Your task to perform on an android device: turn on location history Image 0: 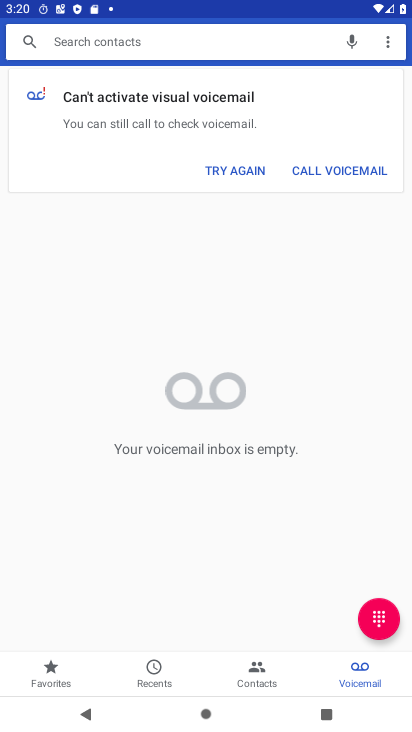
Step 0: press home button
Your task to perform on an android device: turn on location history Image 1: 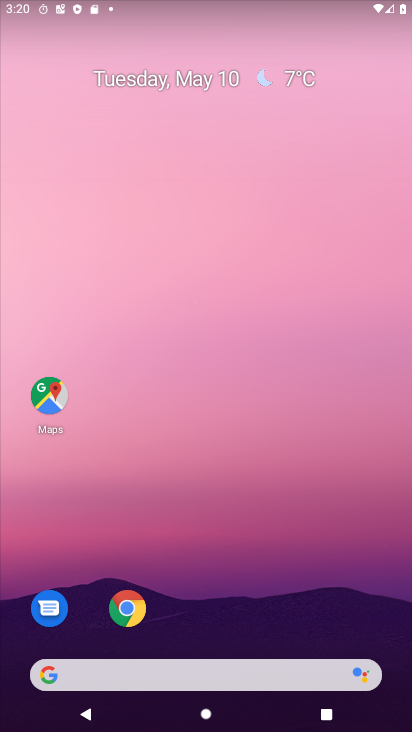
Step 1: click (46, 404)
Your task to perform on an android device: turn on location history Image 2: 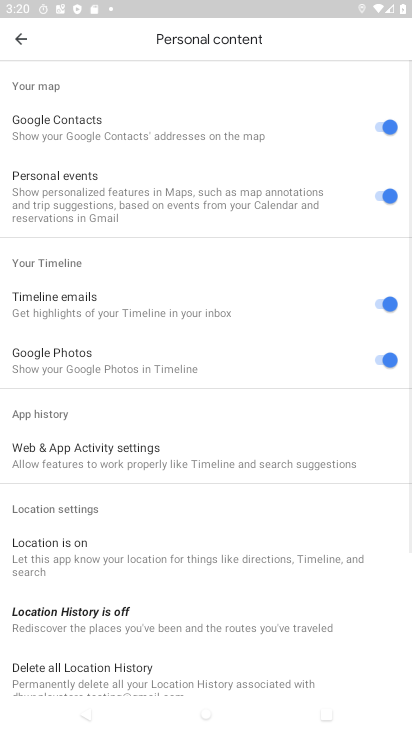
Step 2: click (26, 39)
Your task to perform on an android device: turn on location history Image 3: 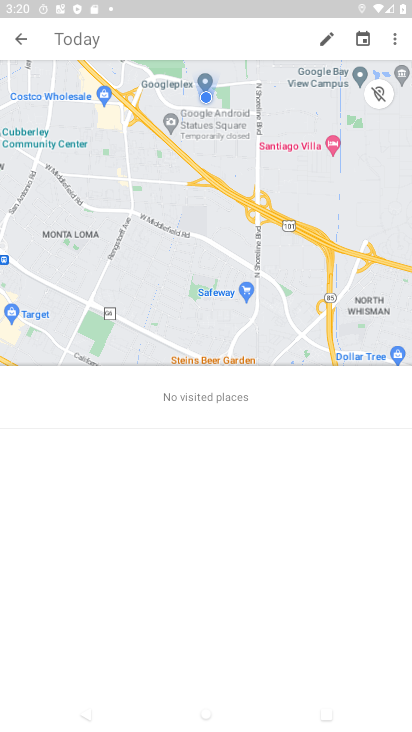
Step 3: click (396, 41)
Your task to perform on an android device: turn on location history Image 4: 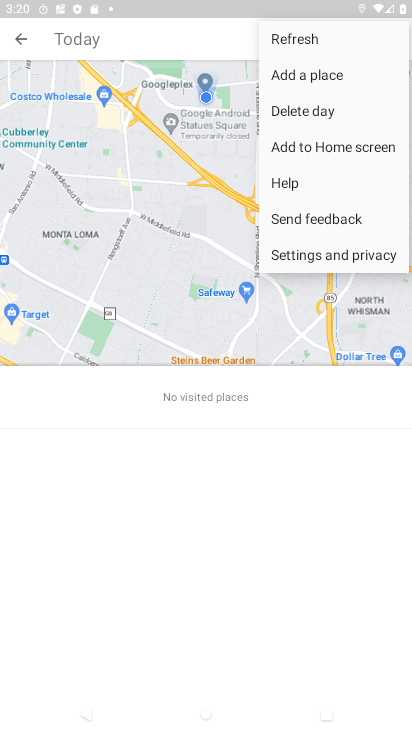
Step 4: click (303, 258)
Your task to perform on an android device: turn on location history Image 5: 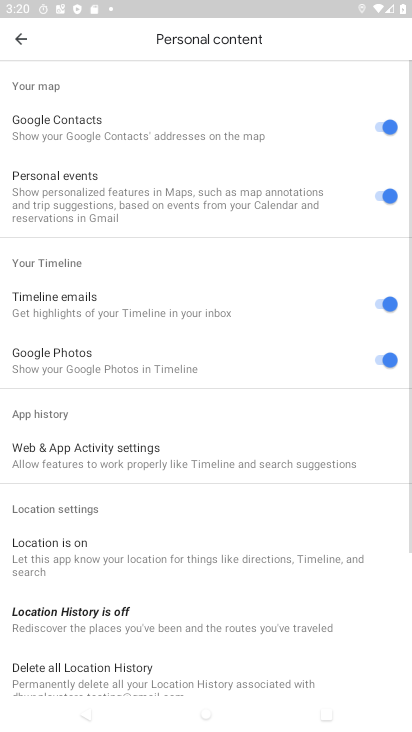
Step 5: click (107, 610)
Your task to perform on an android device: turn on location history Image 6: 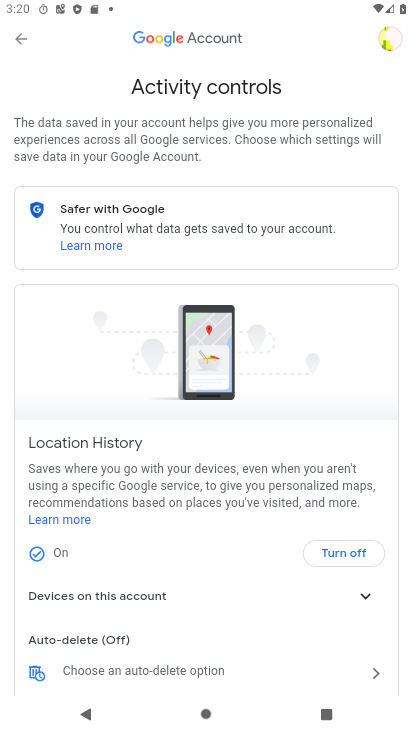
Step 6: task complete